Your task to perform on an android device: turn off wifi Image 0: 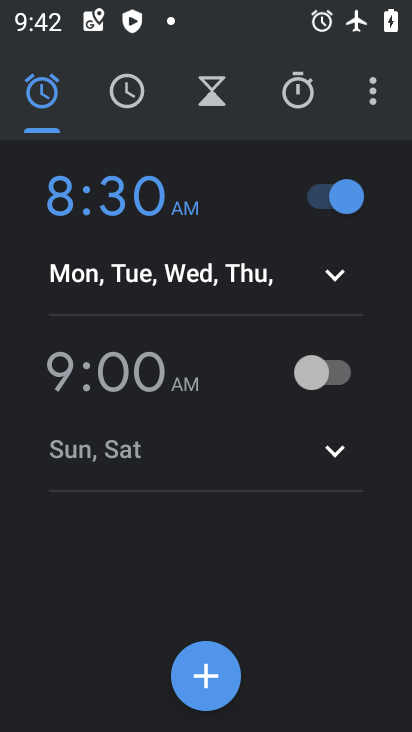
Step 0: press home button
Your task to perform on an android device: turn off wifi Image 1: 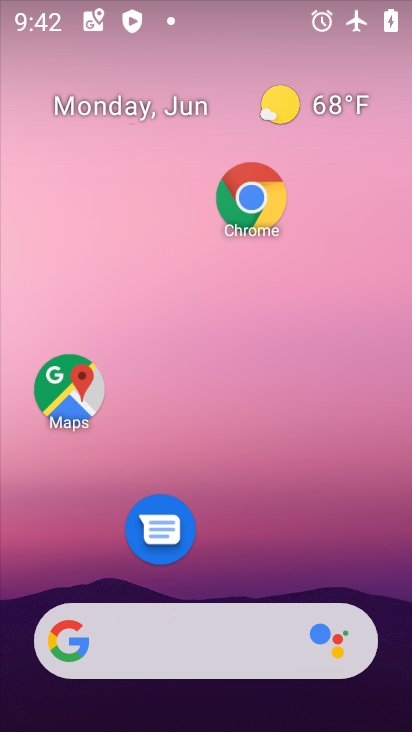
Step 1: drag from (231, 574) to (255, 239)
Your task to perform on an android device: turn off wifi Image 2: 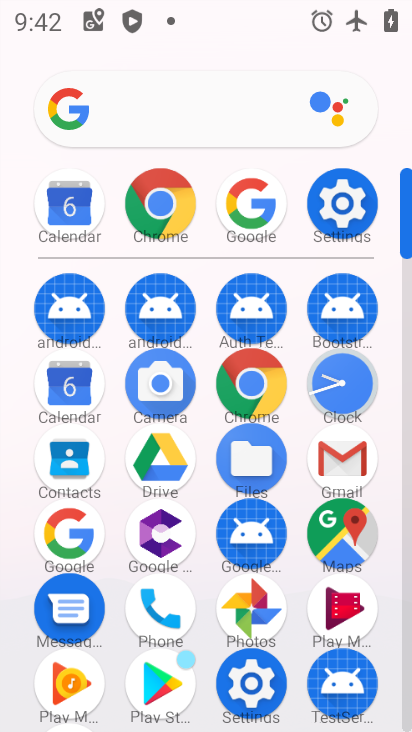
Step 2: click (336, 195)
Your task to perform on an android device: turn off wifi Image 3: 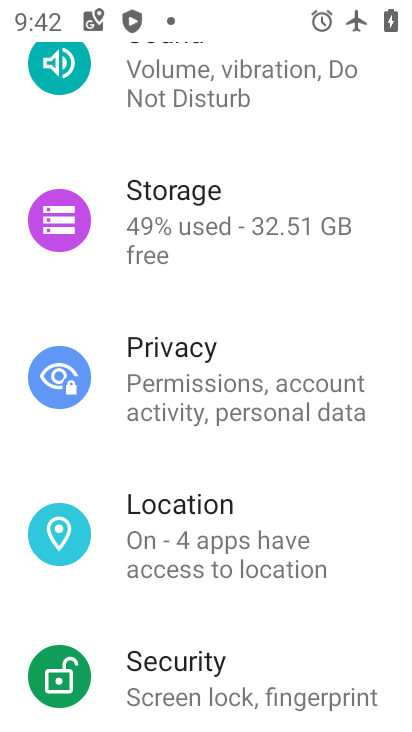
Step 3: drag from (232, 175) to (240, 481)
Your task to perform on an android device: turn off wifi Image 4: 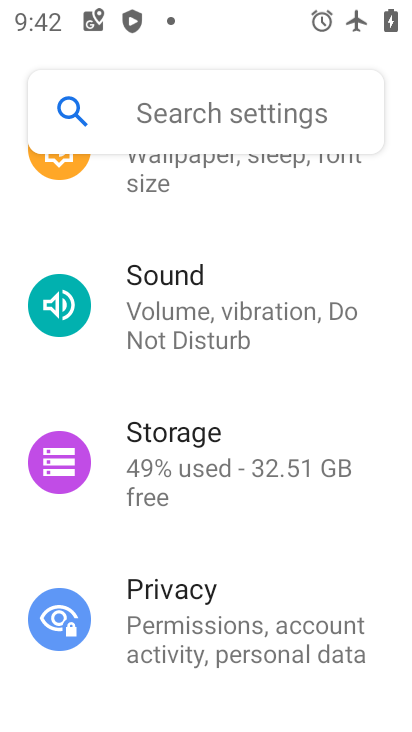
Step 4: drag from (248, 172) to (277, 461)
Your task to perform on an android device: turn off wifi Image 5: 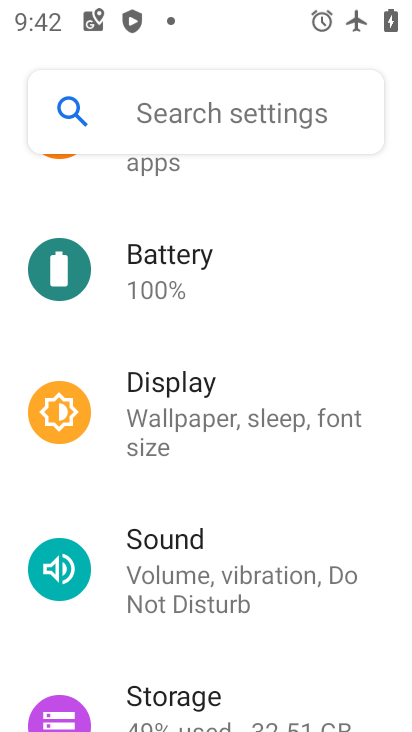
Step 5: drag from (236, 226) to (255, 553)
Your task to perform on an android device: turn off wifi Image 6: 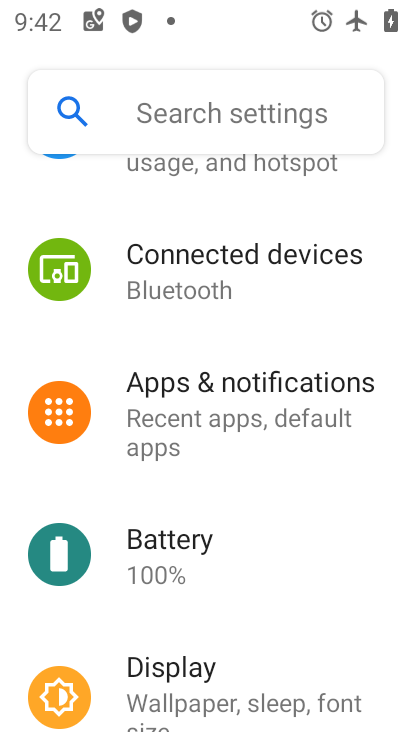
Step 6: drag from (267, 227) to (272, 520)
Your task to perform on an android device: turn off wifi Image 7: 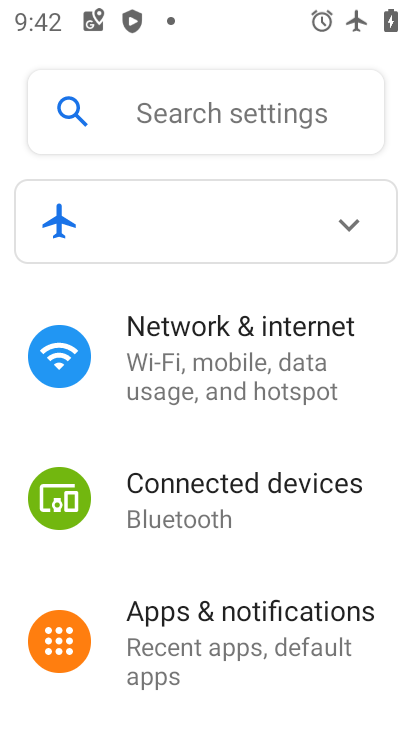
Step 7: click (241, 375)
Your task to perform on an android device: turn off wifi Image 8: 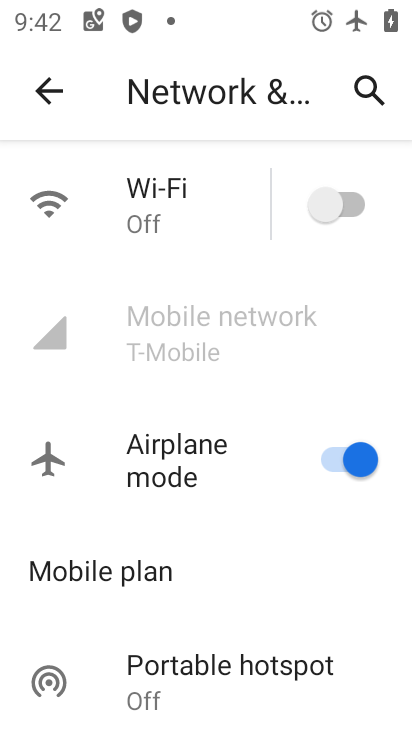
Step 8: task complete